Your task to perform on an android device: add a label to a message in the gmail app Image 0: 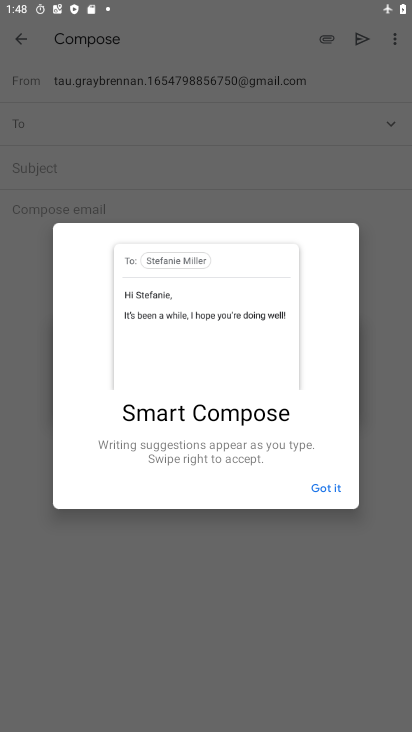
Step 0: press home button
Your task to perform on an android device: add a label to a message in the gmail app Image 1: 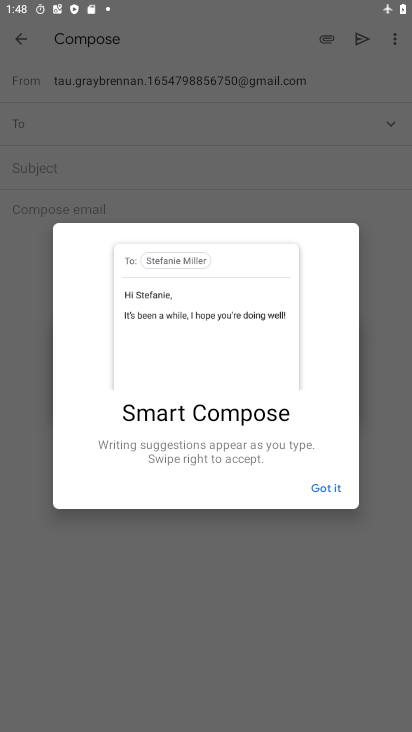
Step 1: drag from (160, 287) to (199, 10)
Your task to perform on an android device: add a label to a message in the gmail app Image 2: 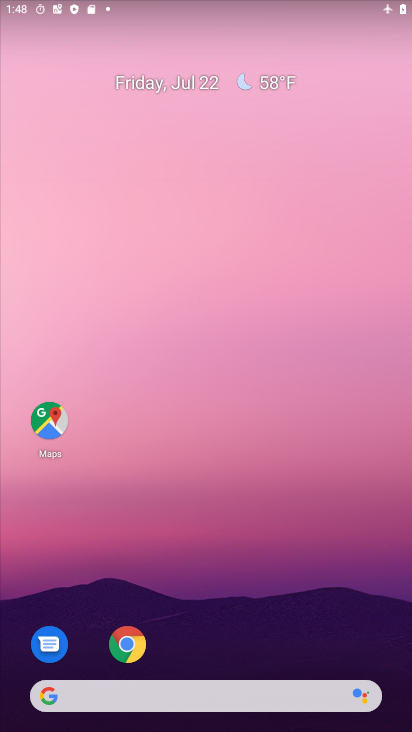
Step 2: drag from (219, 650) to (194, 190)
Your task to perform on an android device: add a label to a message in the gmail app Image 3: 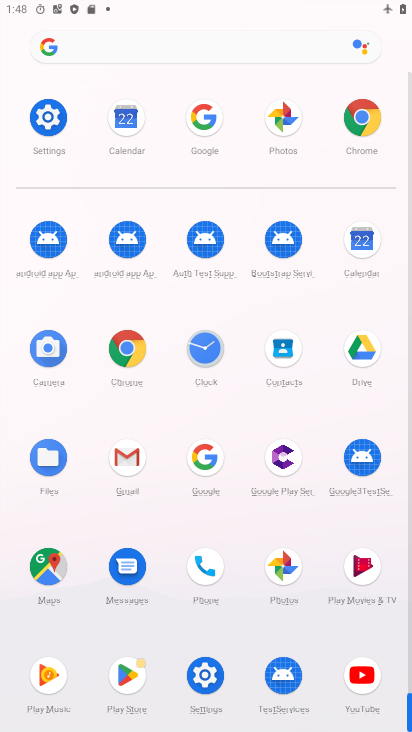
Step 3: click (118, 457)
Your task to perform on an android device: add a label to a message in the gmail app Image 4: 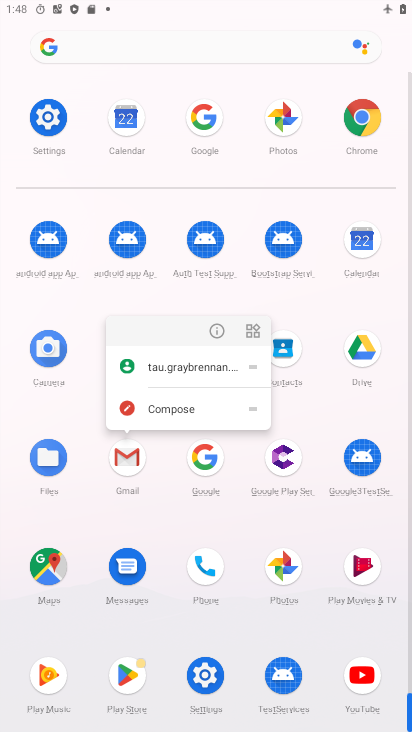
Step 4: click (206, 322)
Your task to perform on an android device: add a label to a message in the gmail app Image 5: 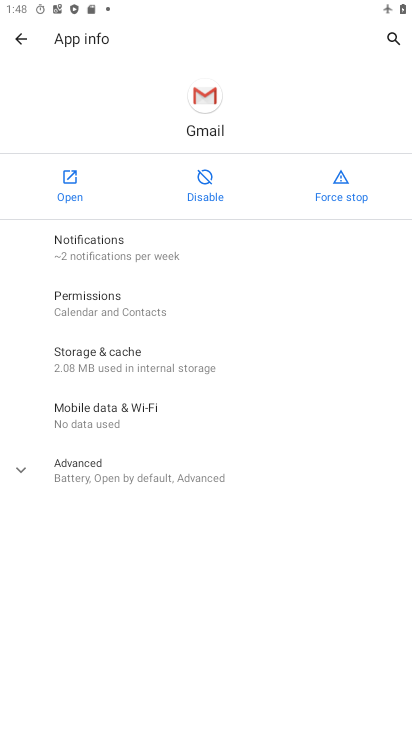
Step 5: click (77, 190)
Your task to perform on an android device: add a label to a message in the gmail app Image 6: 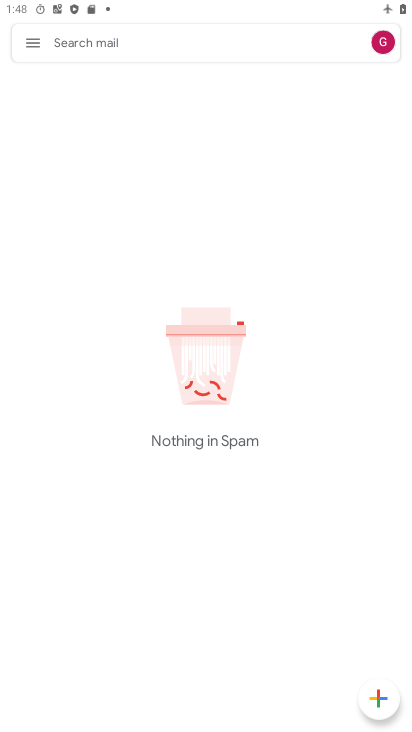
Step 6: click (219, 224)
Your task to perform on an android device: add a label to a message in the gmail app Image 7: 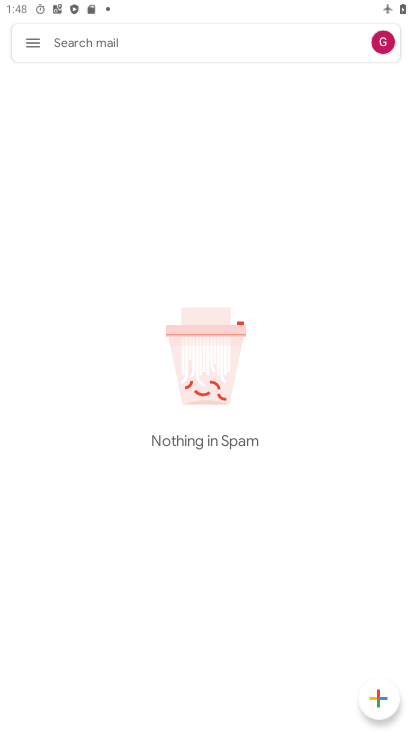
Step 7: task complete